Your task to perform on an android device: Open settings Image 0: 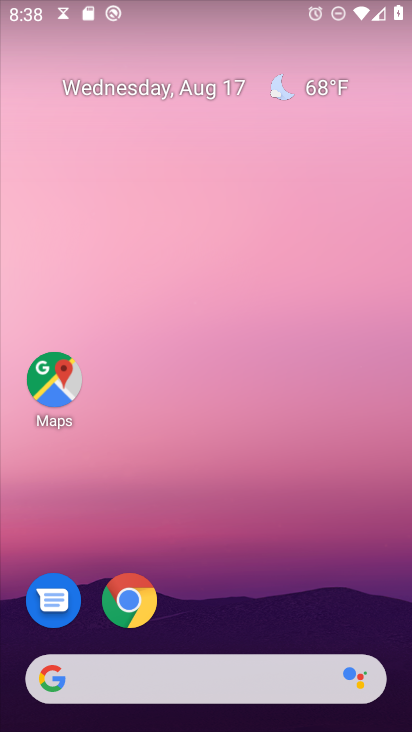
Step 0: press home button
Your task to perform on an android device: Open settings Image 1: 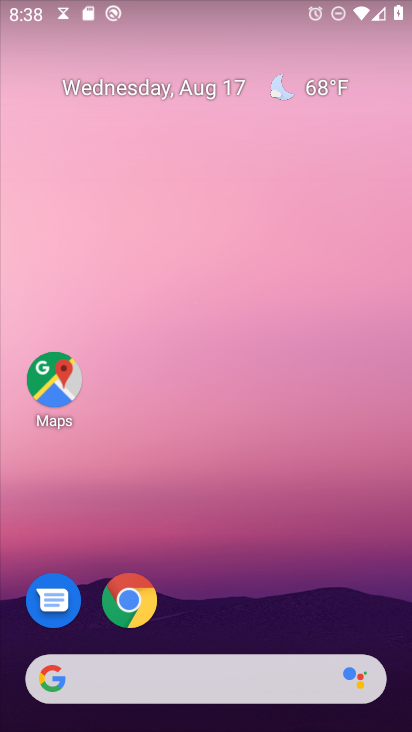
Step 1: drag from (283, 583) to (218, 71)
Your task to perform on an android device: Open settings Image 2: 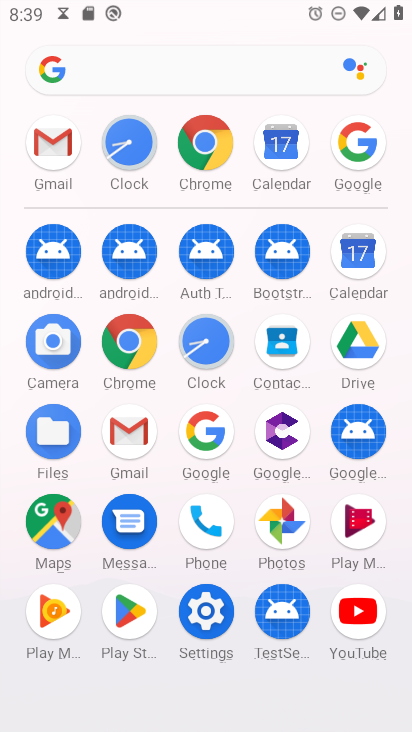
Step 2: click (201, 608)
Your task to perform on an android device: Open settings Image 3: 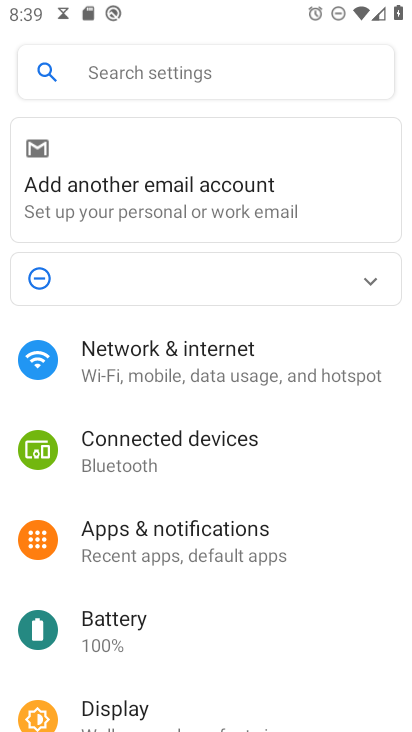
Step 3: task complete